Your task to perform on an android device: Go to Reddit.com Image 0: 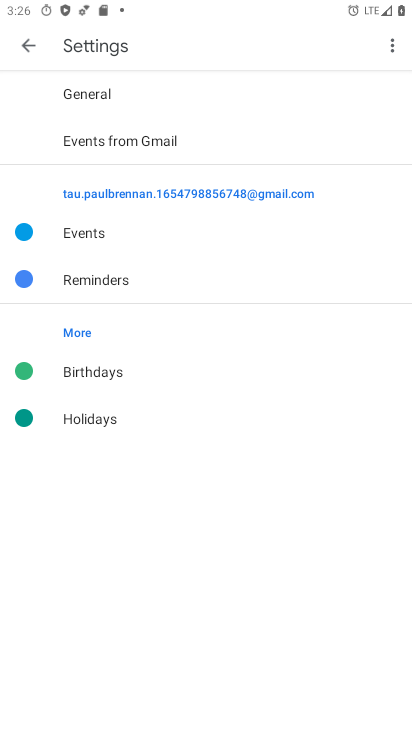
Step 0: press home button
Your task to perform on an android device: Go to Reddit.com Image 1: 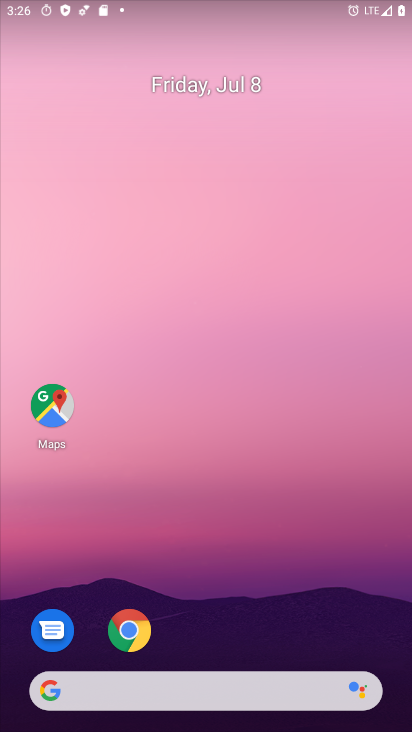
Step 1: click (202, 694)
Your task to perform on an android device: Go to Reddit.com Image 2: 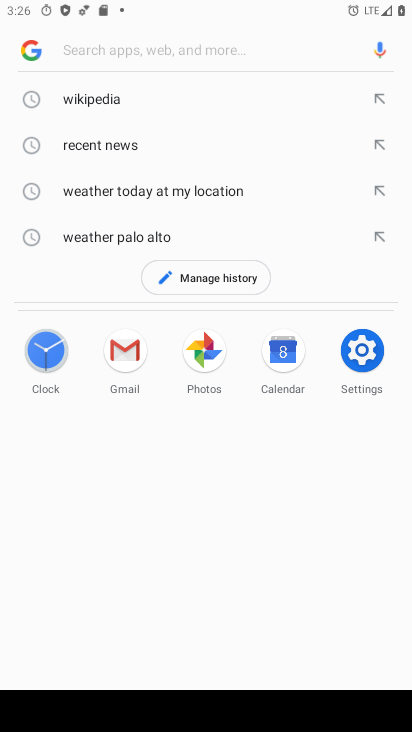
Step 2: type "Reddit.com"
Your task to perform on an android device: Go to Reddit.com Image 3: 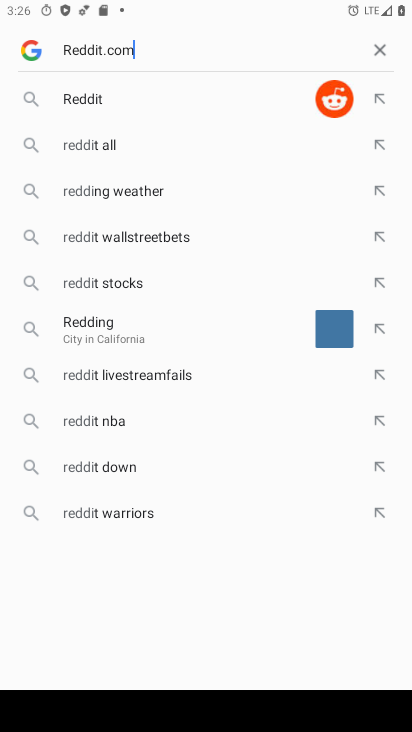
Step 3: press enter
Your task to perform on an android device: Go to Reddit.com Image 4: 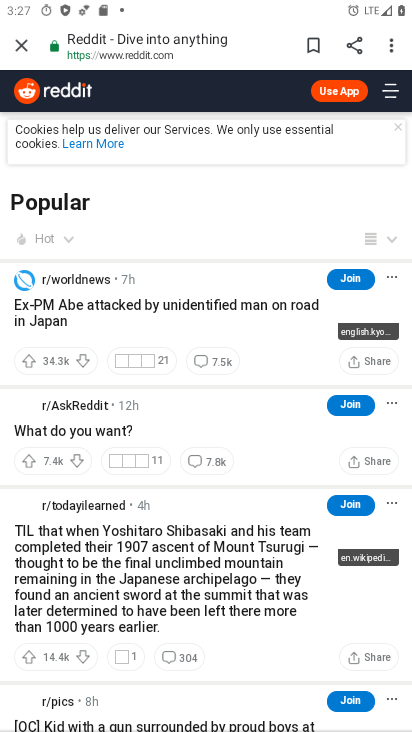
Step 4: task complete